Your task to perform on an android device: Go to CNN.com Image 0: 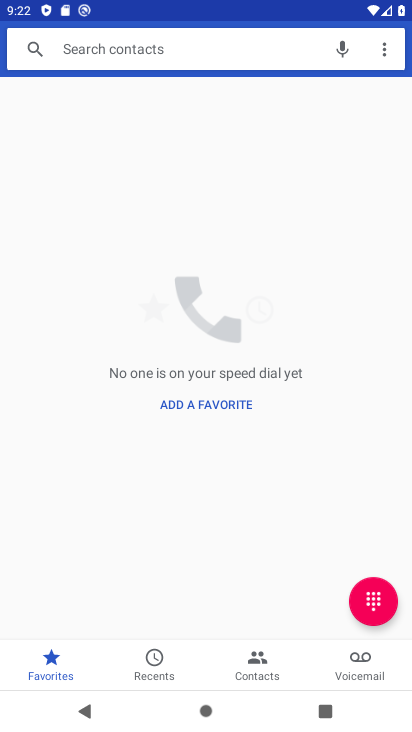
Step 0: press home button
Your task to perform on an android device: Go to CNN.com Image 1: 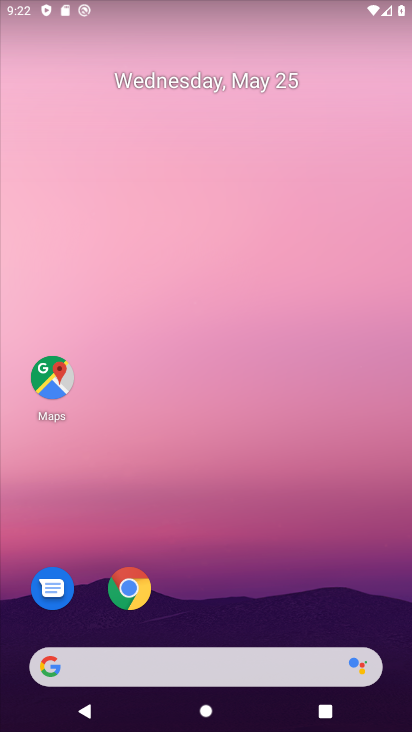
Step 1: click (124, 585)
Your task to perform on an android device: Go to CNN.com Image 2: 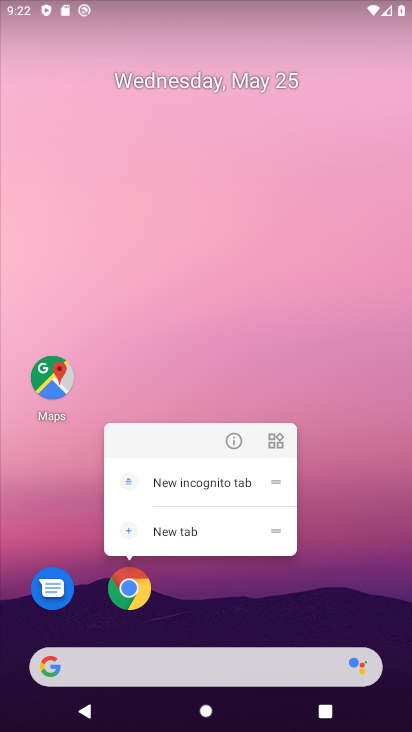
Step 2: click (124, 585)
Your task to perform on an android device: Go to CNN.com Image 3: 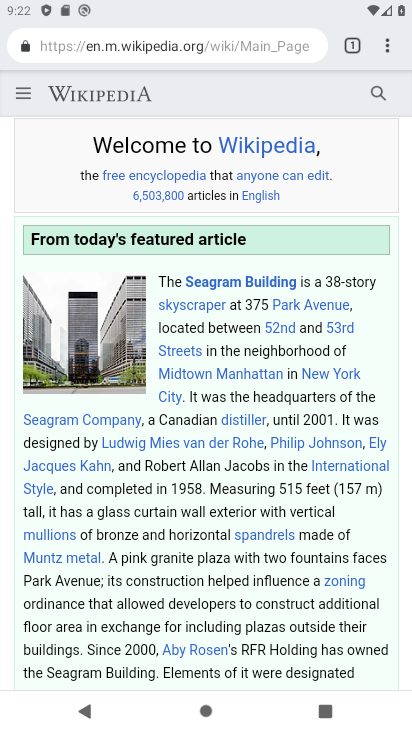
Step 3: click (171, 35)
Your task to perform on an android device: Go to CNN.com Image 4: 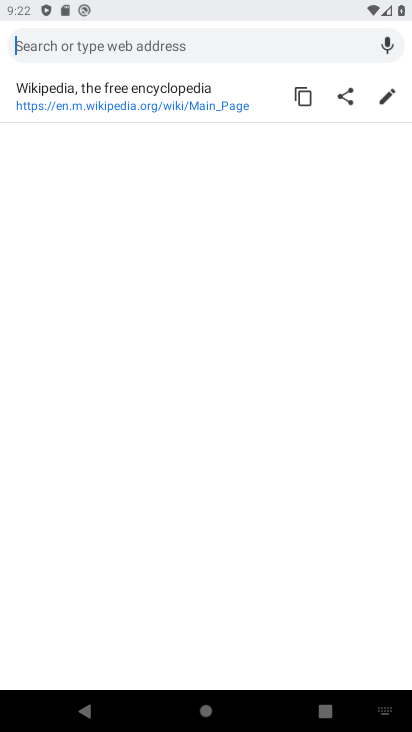
Step 4: type "CNN.com"
Your task to perform on an android device: Go to CNN.com Image 5: 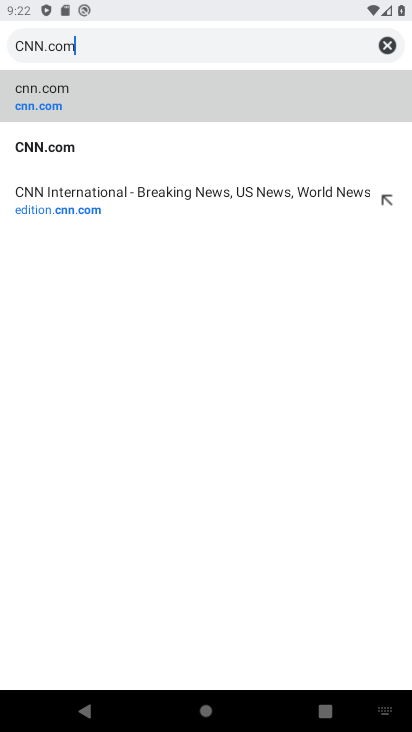
Step 5: click (41, 103)
Your task to perform on an android device: Go to CNN.com Image 6: 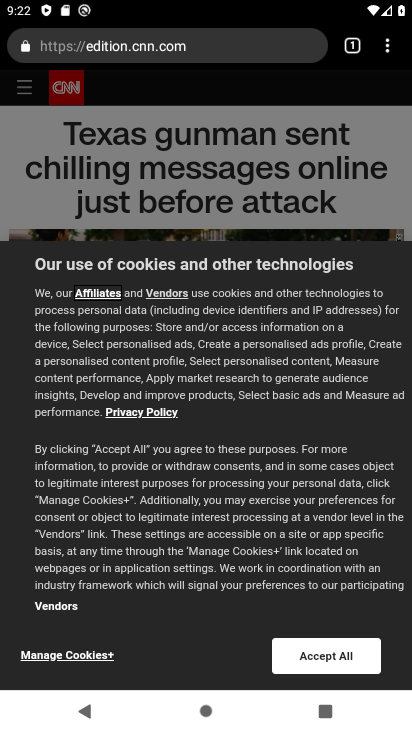
Step 6: task complete